Your task to perform on an android device: Open Chrome and go to settings Image 0: 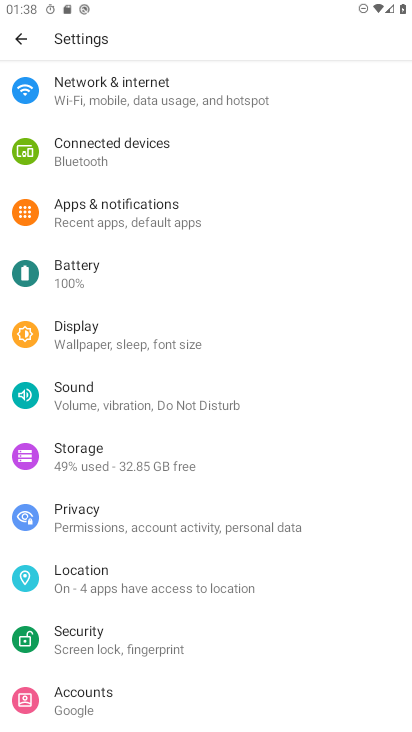
Step 0: press home button
Your task to perform on an android device: Open Chrome and go to settings Image 1: 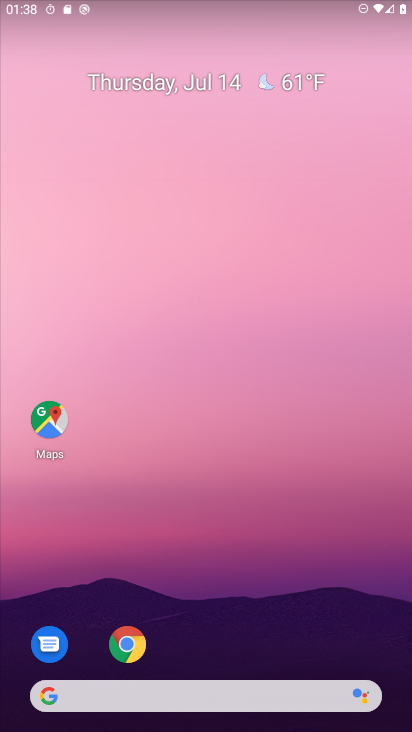
Step 1: drag from (323, 557) to (301, 57)
Your task to perform on an android device: Open Chrome and go to settings Image 2: 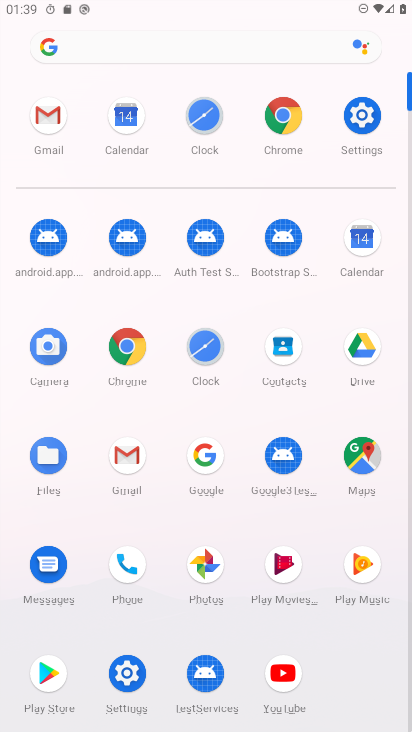
Step 2: click (280, 121)
Your task to perform on an android device: Open Chrome and go to settings Image 3: 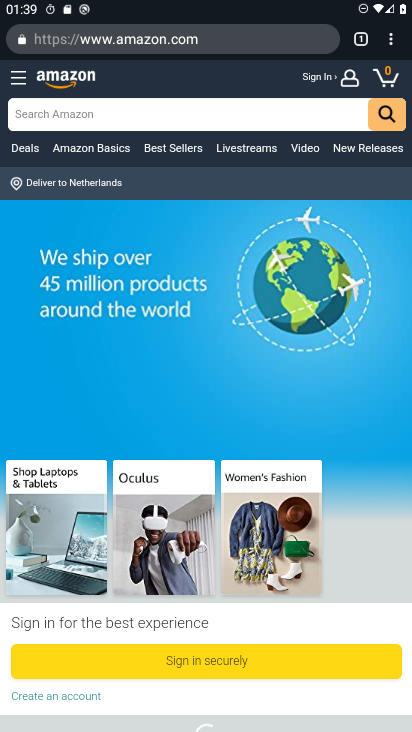
Step 3: task complete